Your task to perform on an android device: choose inbox layout in the gmail app Image 0: 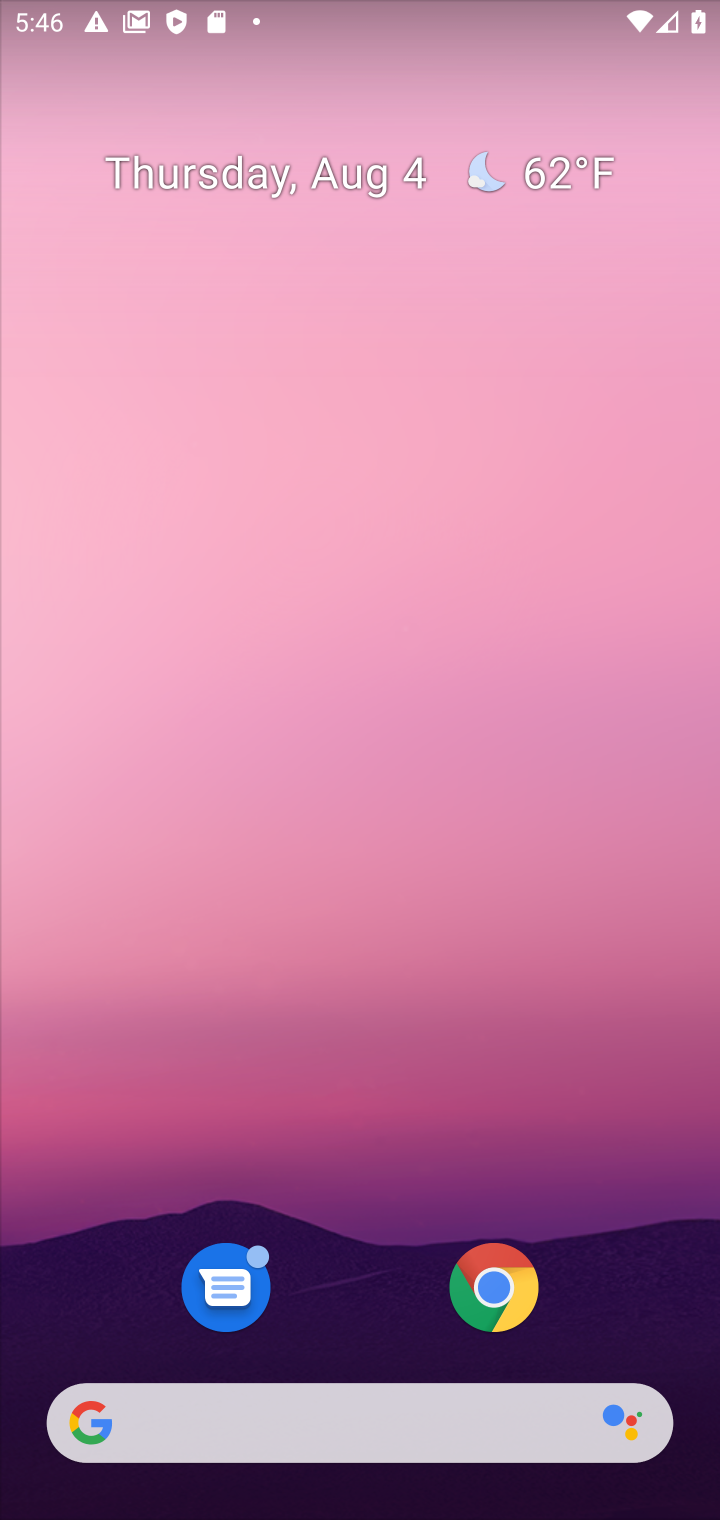
Step 0: drag from (275, 985) to (268, 346)
Your task to perform on an android device: choose inbox layout in the gmail app Image 1: 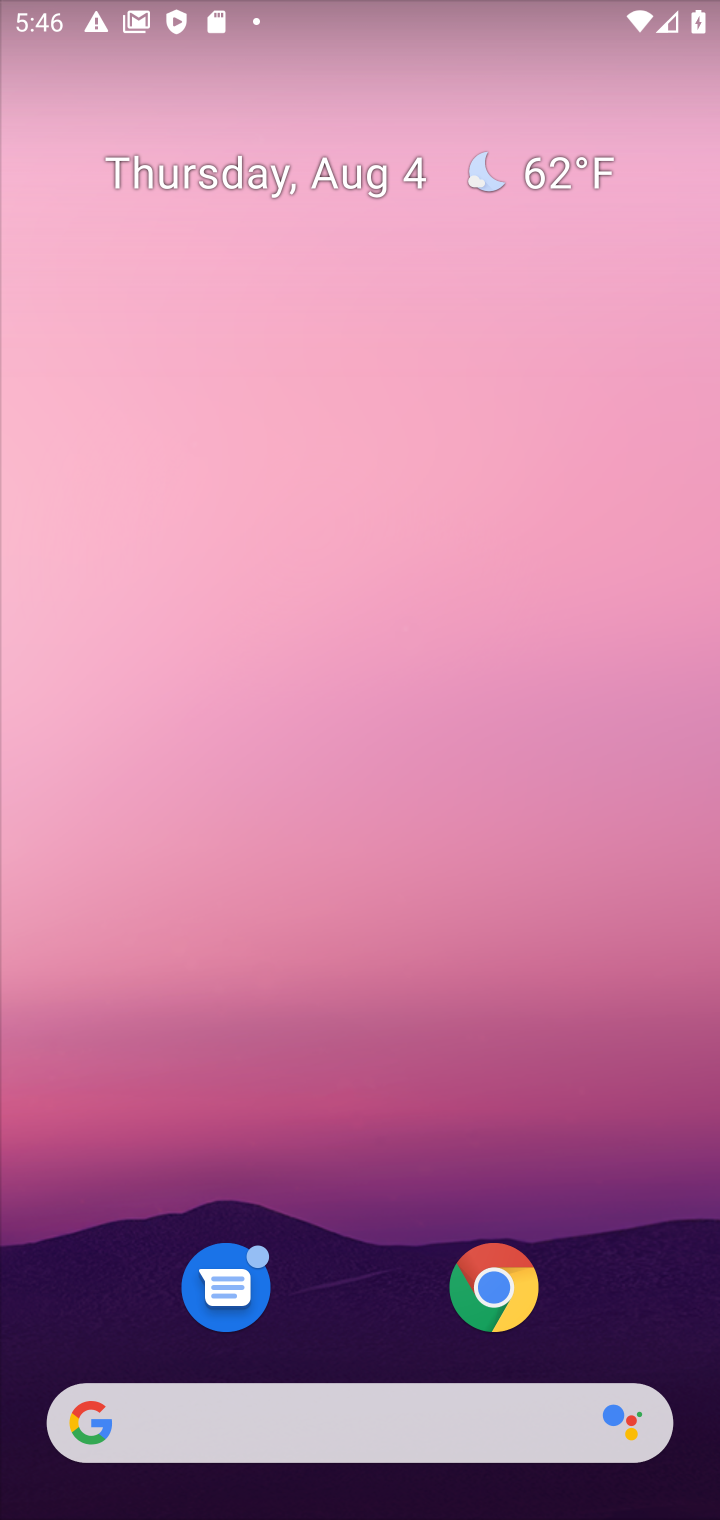
Step 1: drag from (275, 1518) to (343, 9)
Your task to perform on an android device: choose inbox layout in the gmail app Image 2: 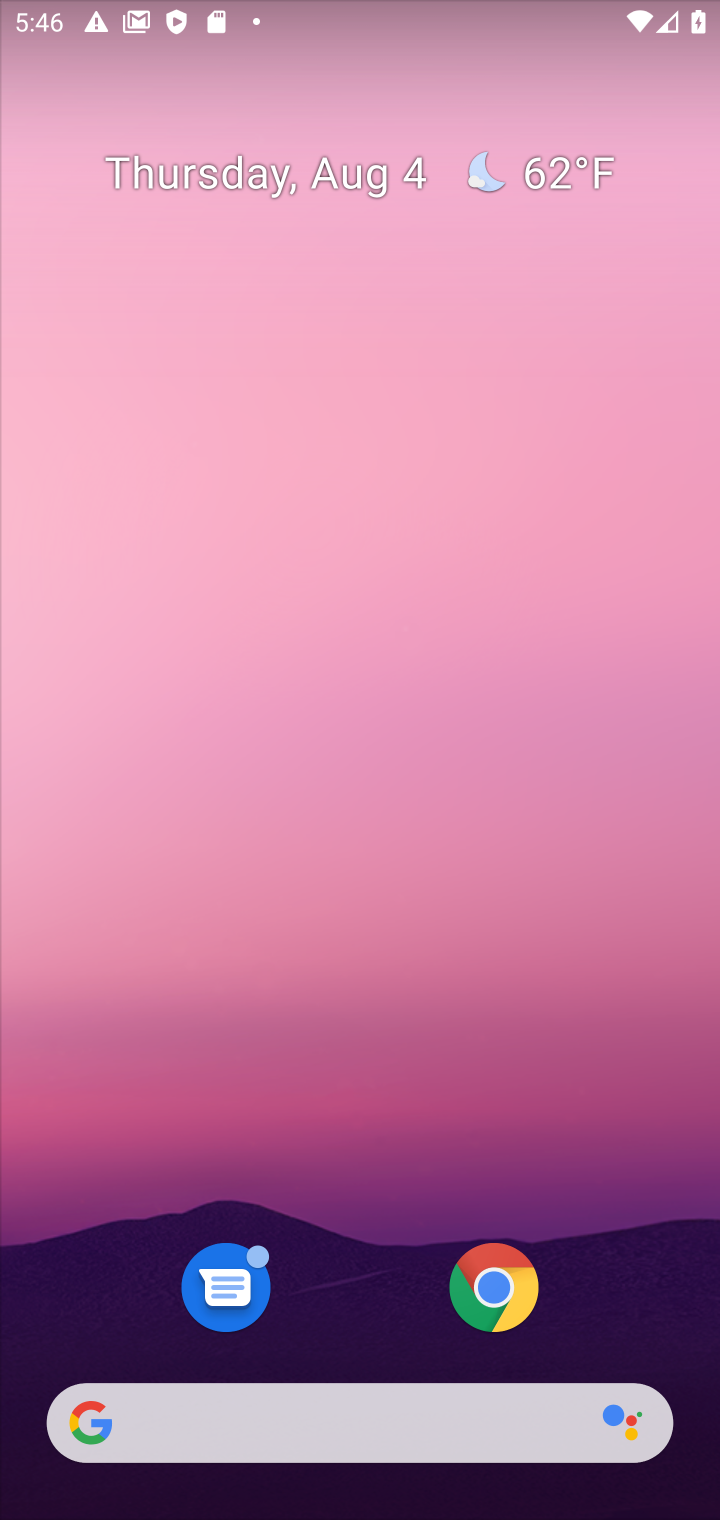
Step 2: drag from (318, 1480) to (392, 48)
Your task to perform on an android device: choose inbox layout in the gmail app Image 3: 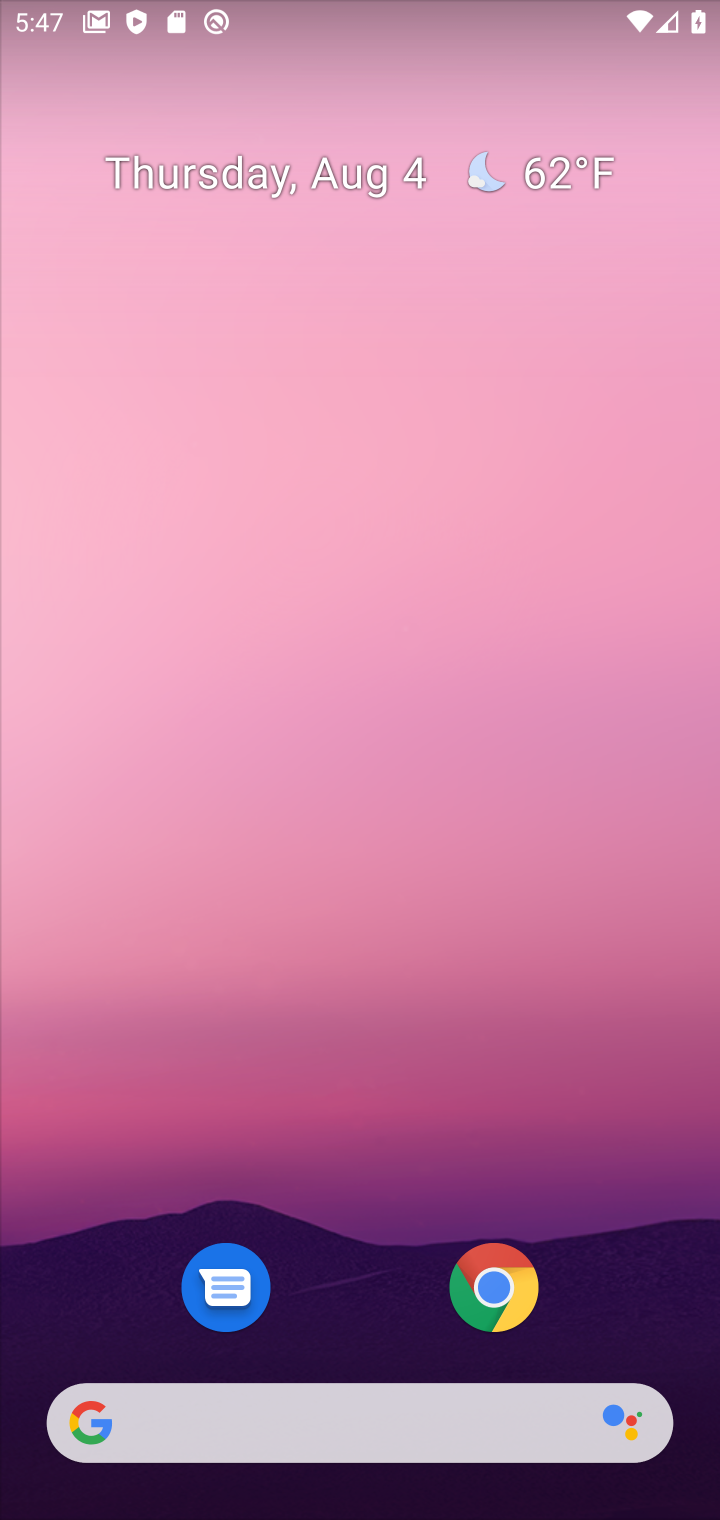
Step 3: drag from (124, 1510) to (141, 128)
Your task to perform on an android device: choose inbox layout in the gmail app Image 4: 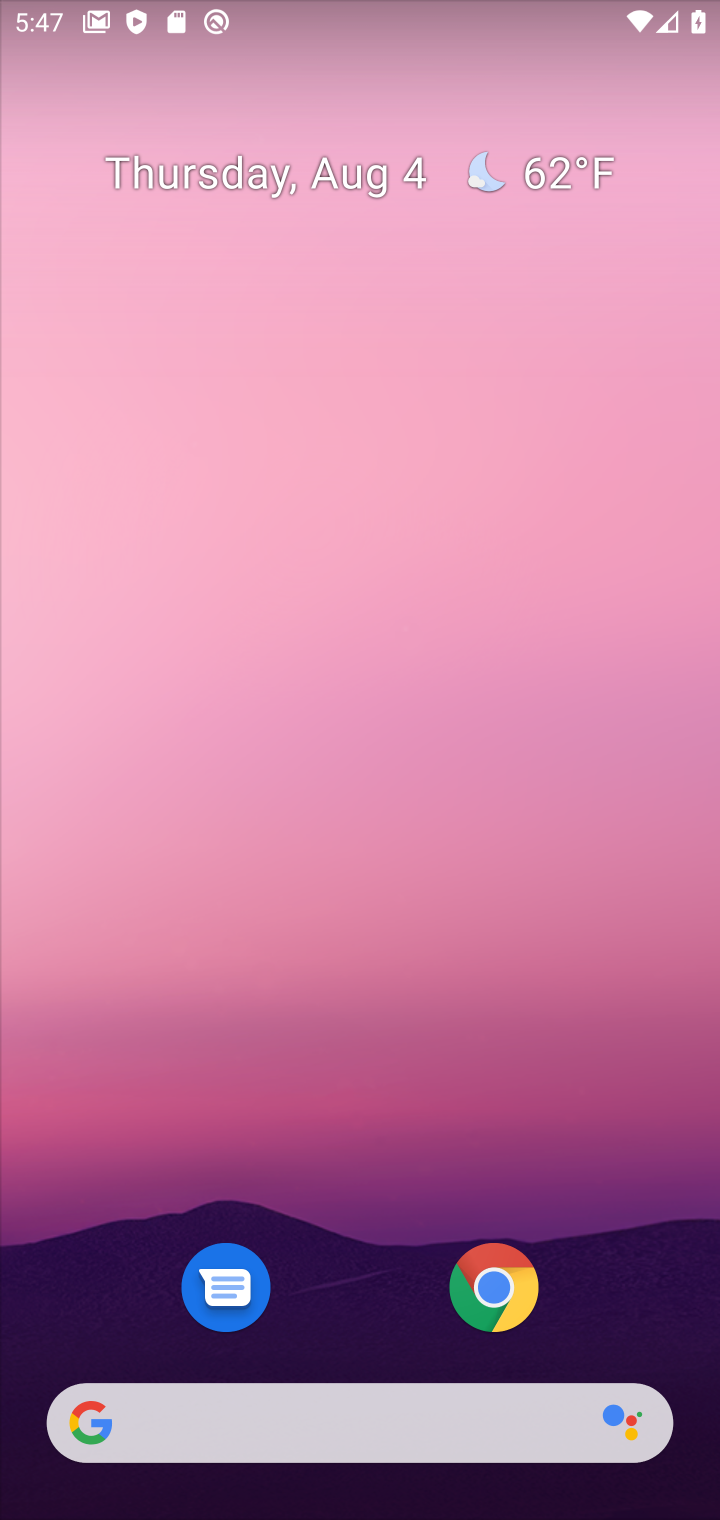
Step 4: drag from (483, 1423) to (627, 51)
Your task to perform on an android device: choose inbox layout in the gmail app Image 5: 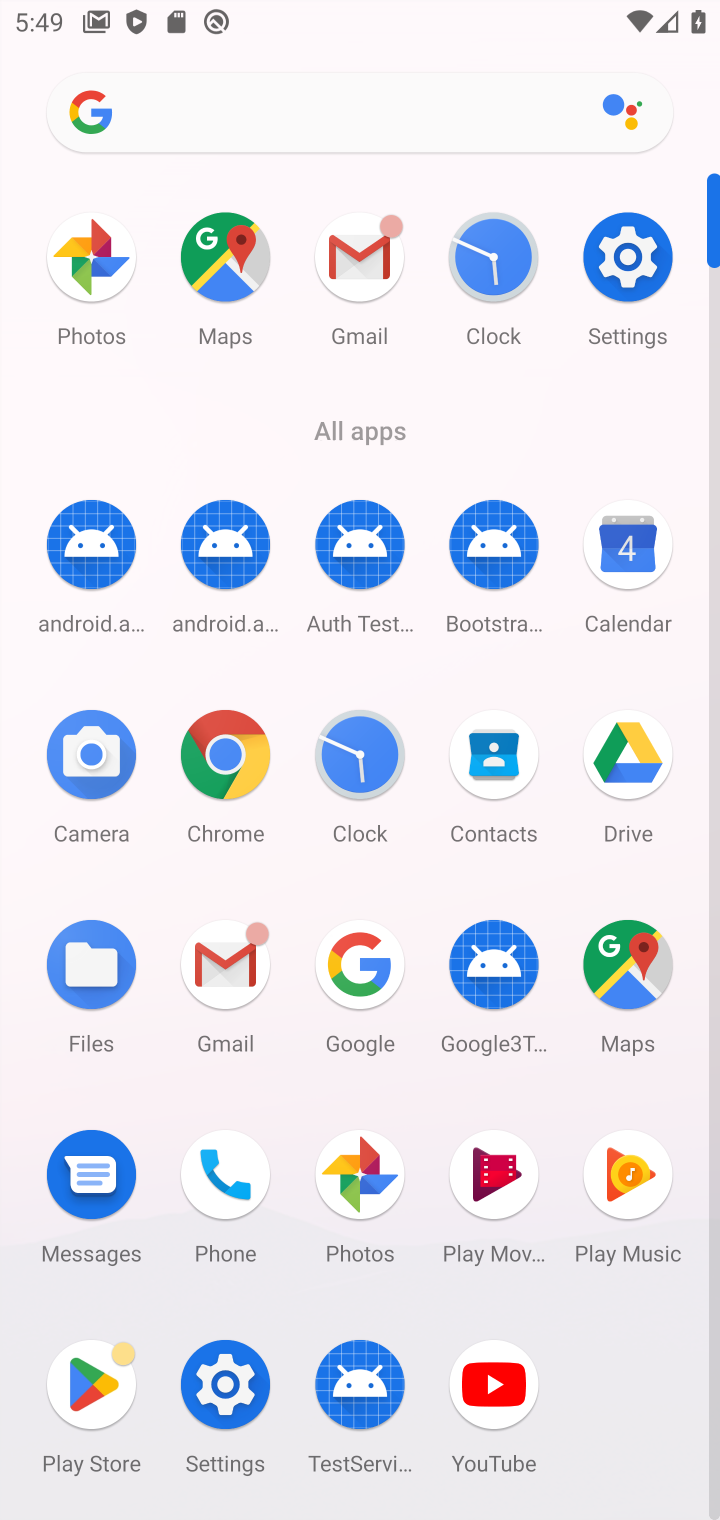
Step 5: click (350, 263)
Your task to perform on an android device: choose inbox layout in the gmail app Image 6: 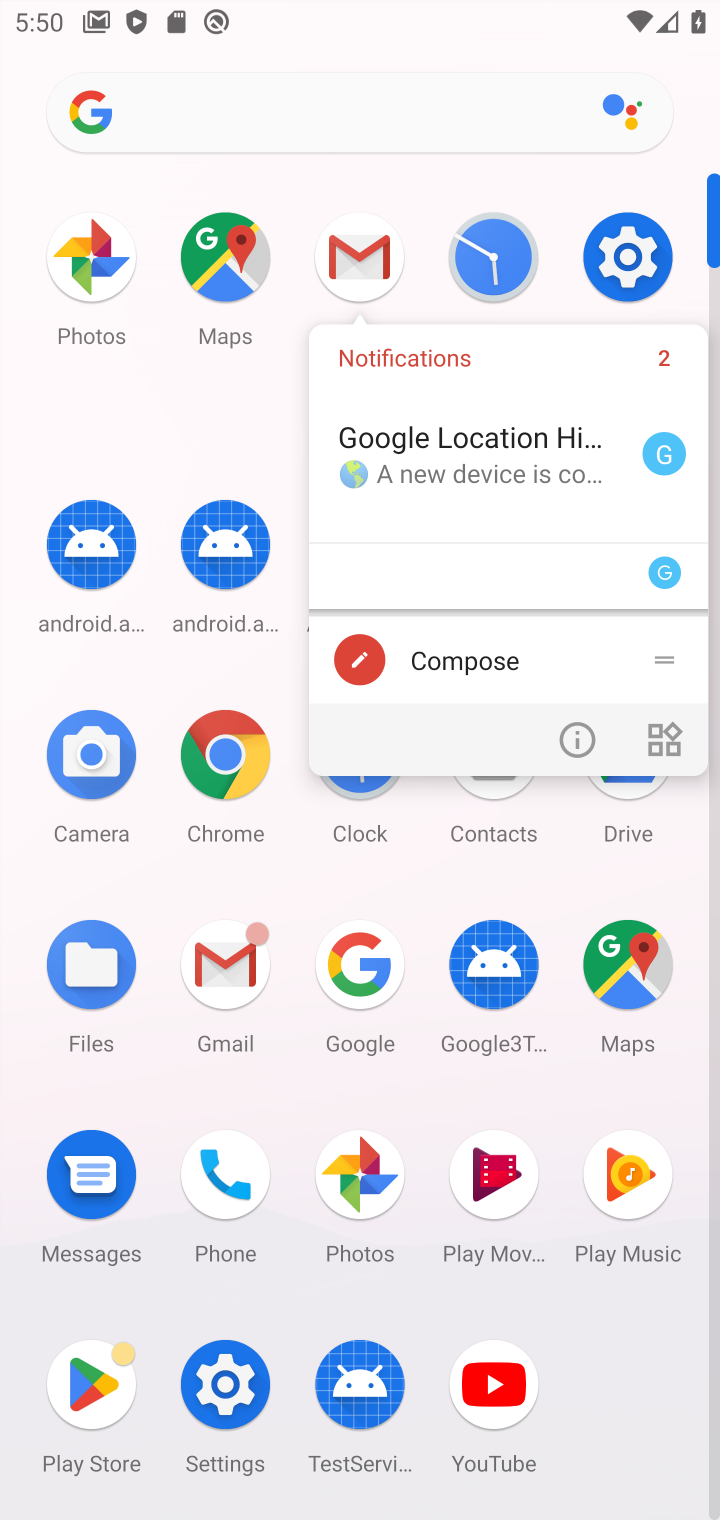
Step 6: click (392, 237)
Your task to perform on an android device: choose inbox layout in the gmail app Image 7: 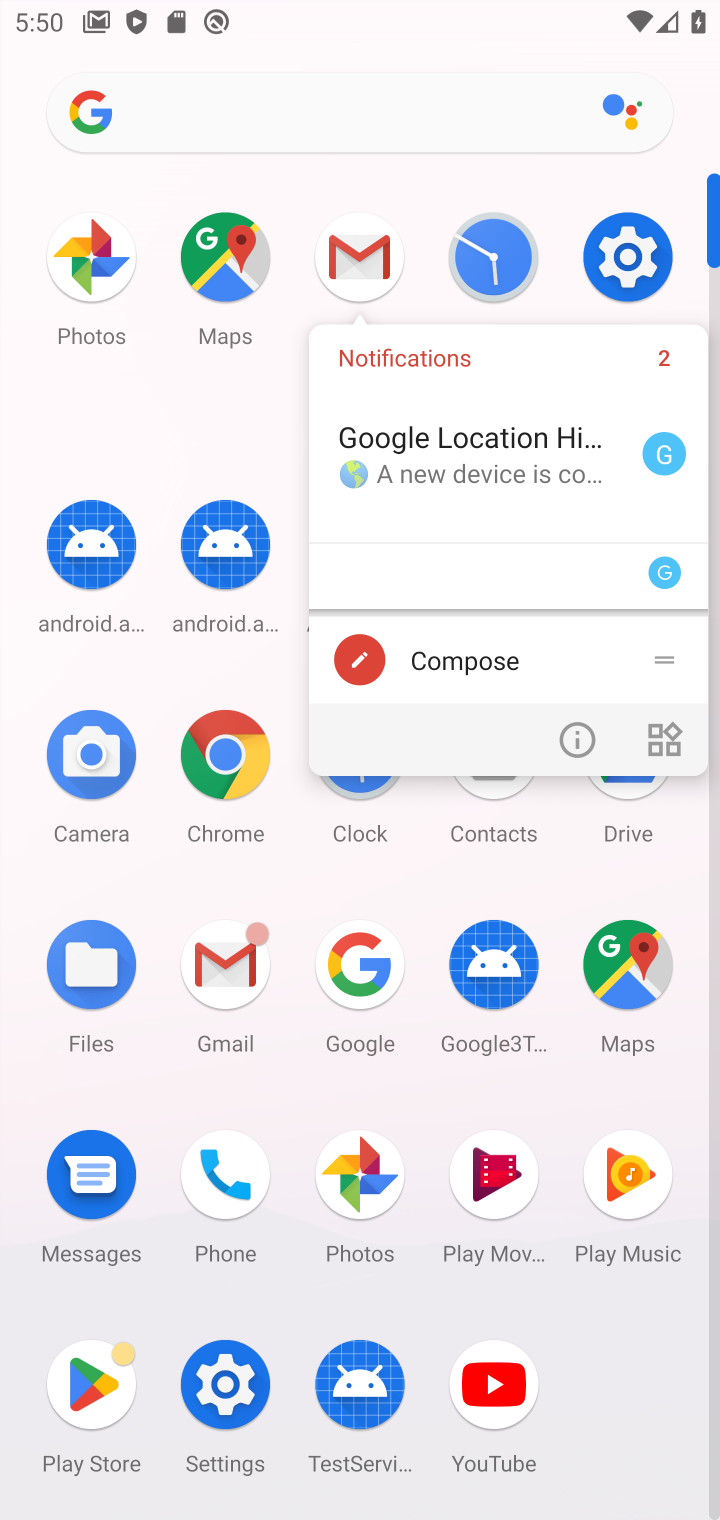
Step 7: click (366, 223)
Your task to perform on an android device: choose inbox layout in the gmail app Image 8: 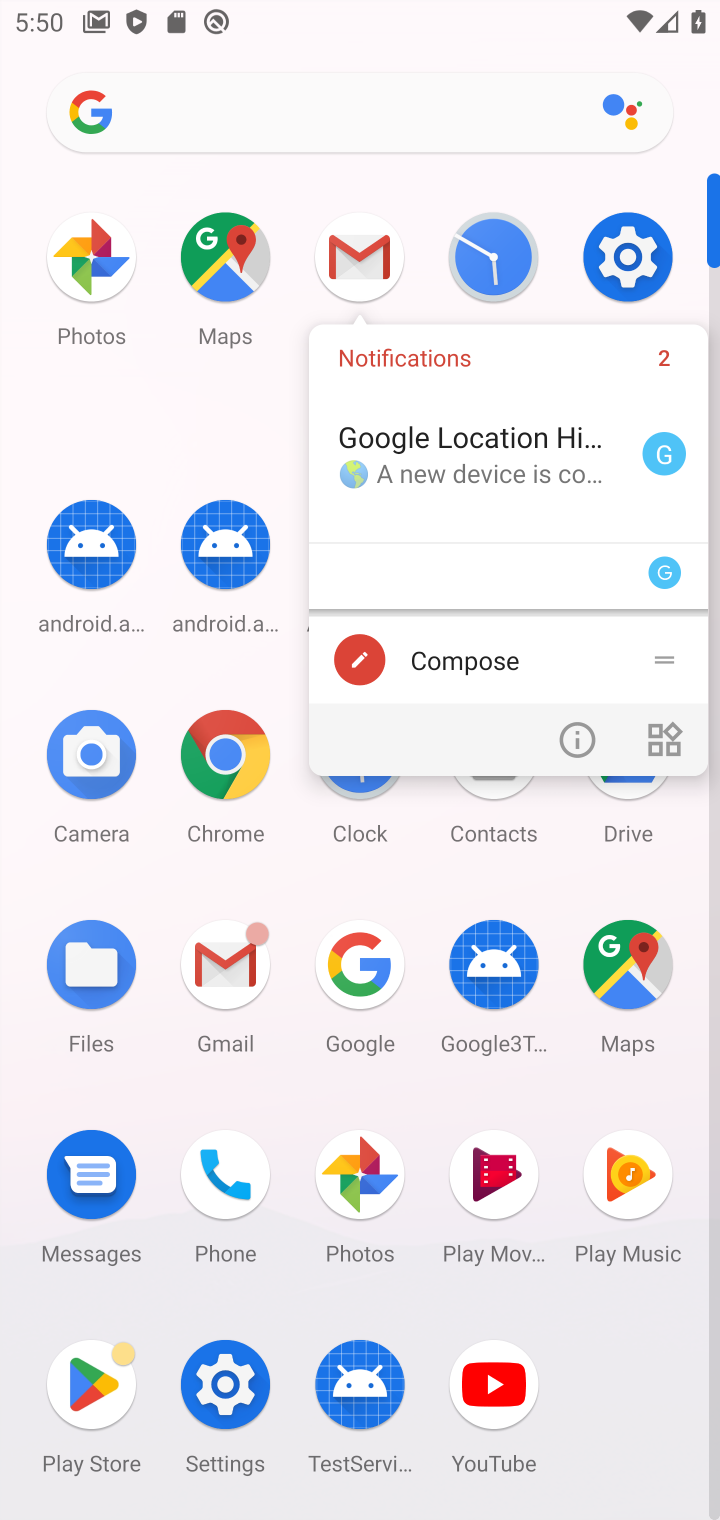
Step 8: click (366, 257)
Your task to perform on an android device: choose inbox layout in the gmail app Image 9: 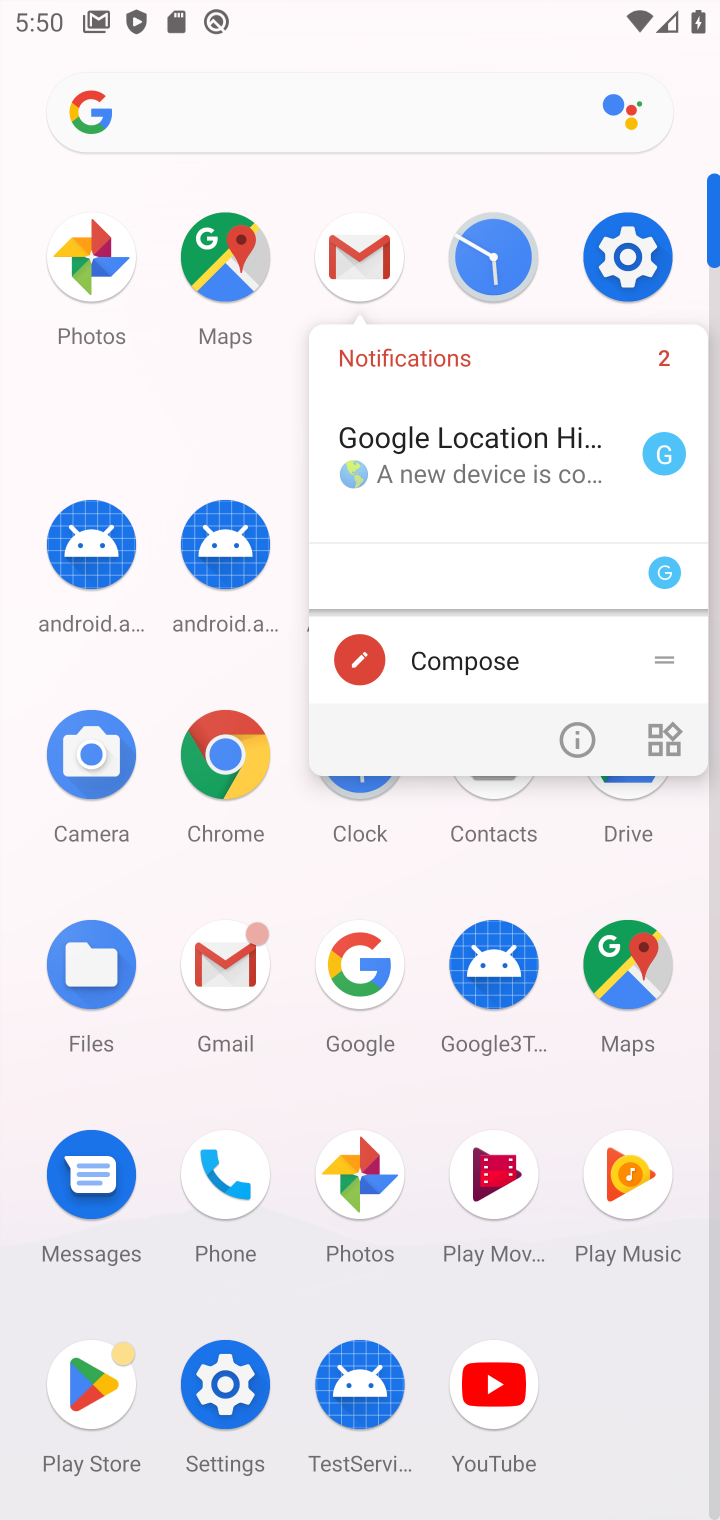
Step 9: click (369, 256)
Your task to perform on an android device: choose inbox layout in the gmail app Image 10: 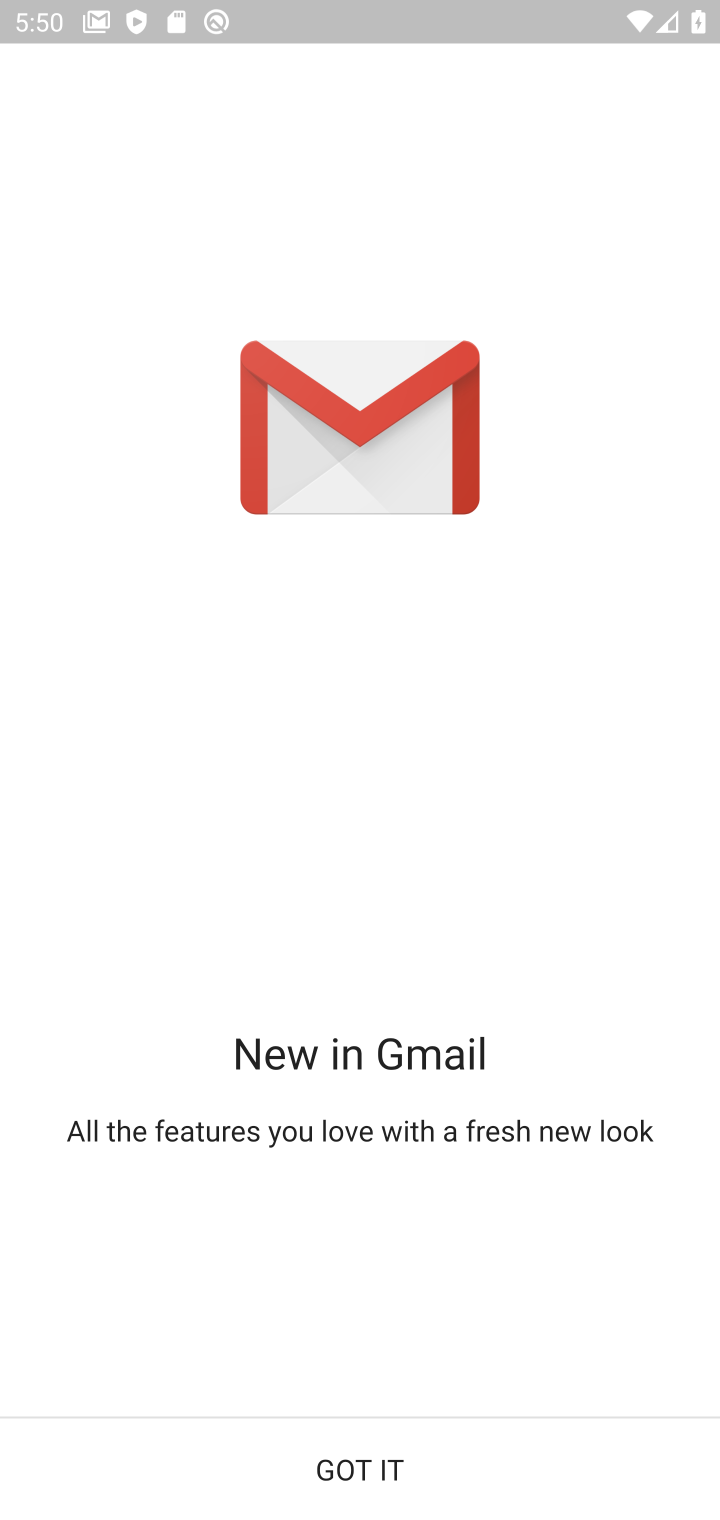
Step 10: click (397, 1482)
Your task to perform on an android device: choose inbox layout in the gmail app Image 11: 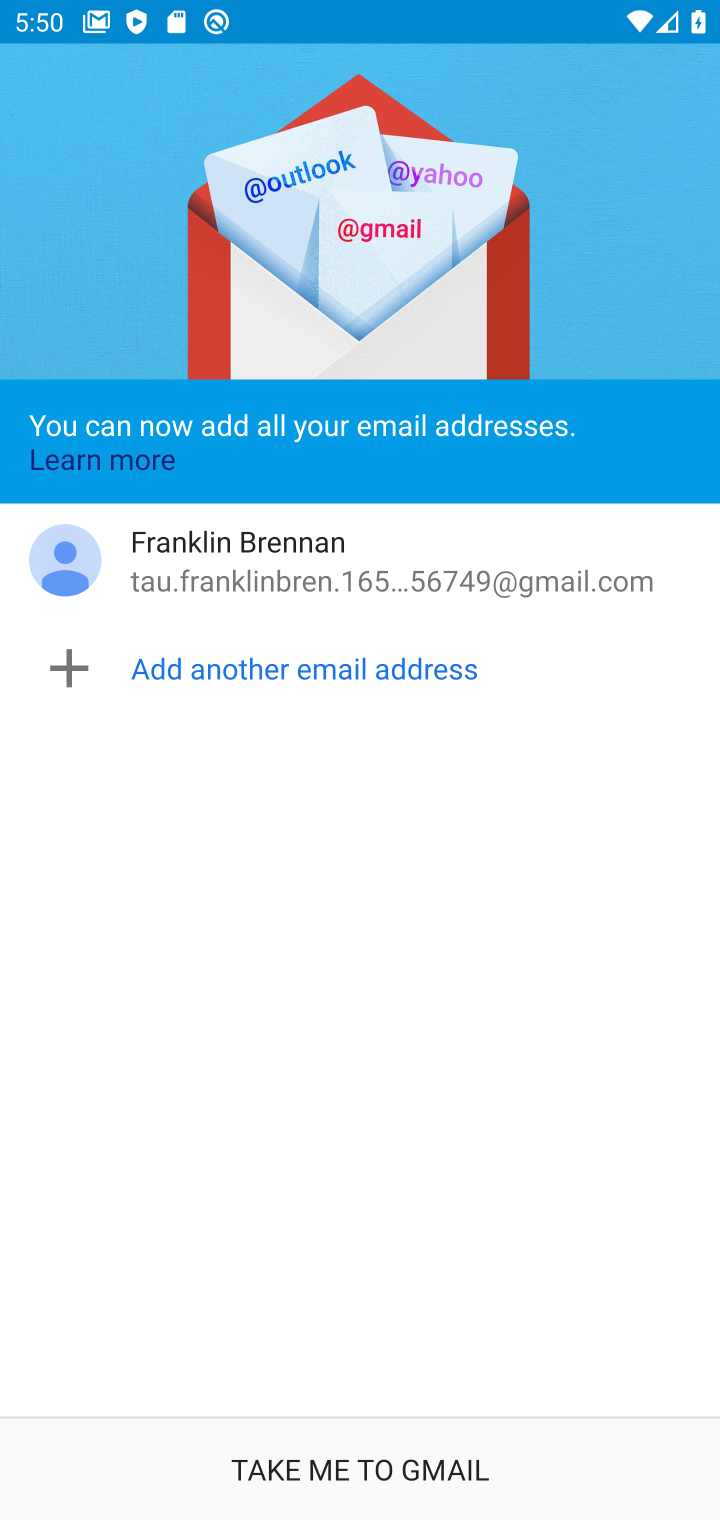
Step 11: click (397, 1482)
Your task to perform on an android device: choose inbox layout in the gmail app Image 12: 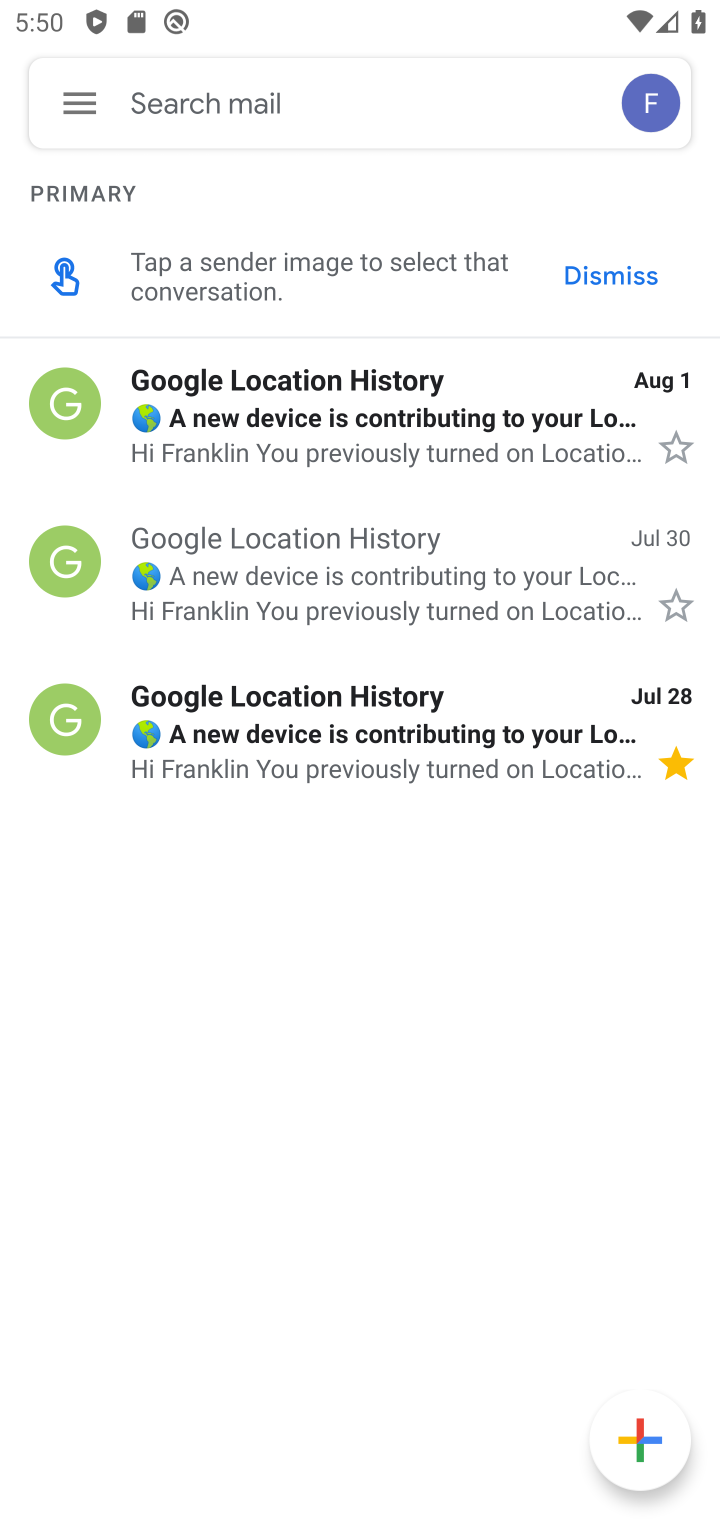
Step 12: click (85, 86)
Your task to perform on an android device: choose inbox layout in the gmail app Image 13: 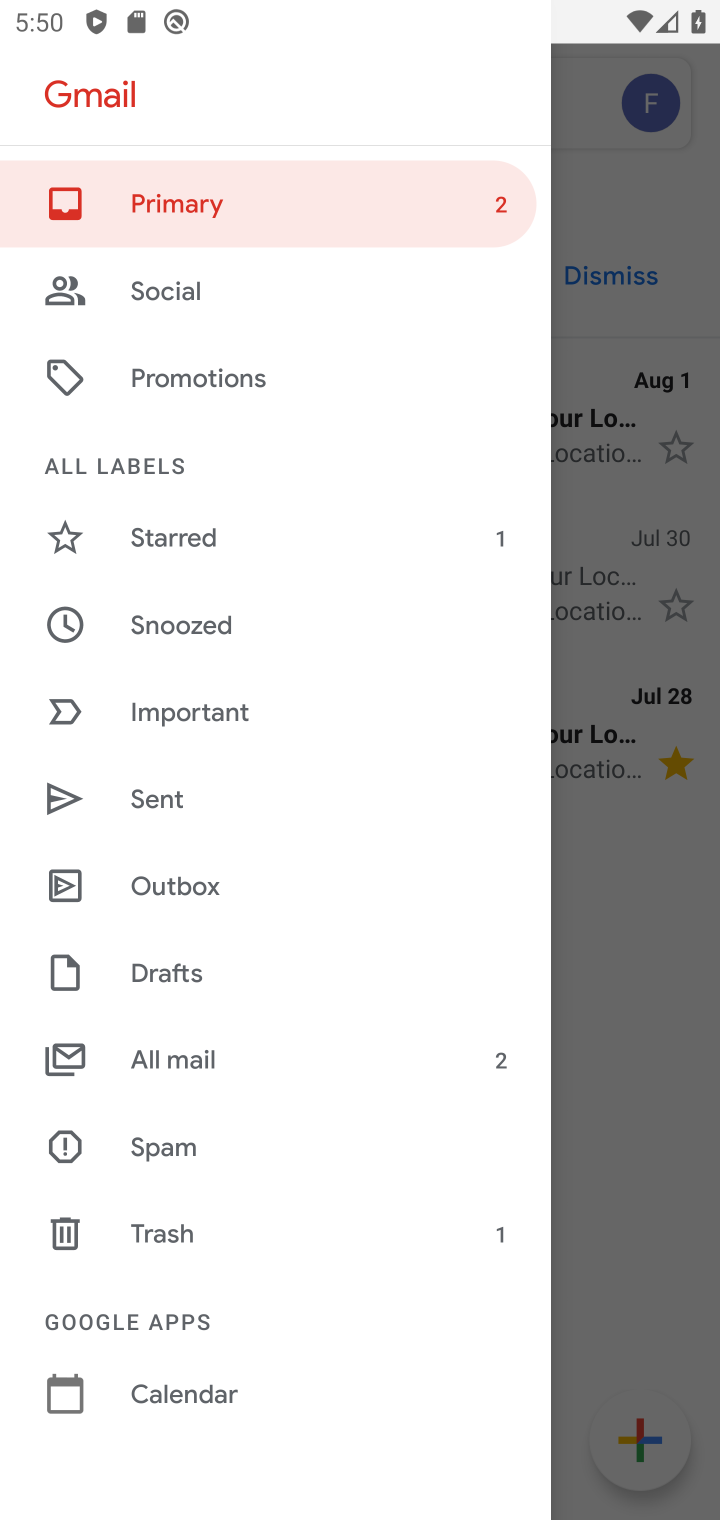
Step 13: drag from (250, 1402) to (305, 291)
Your task to perform on an android device: choose inbox layout in the gmail app Image 14: 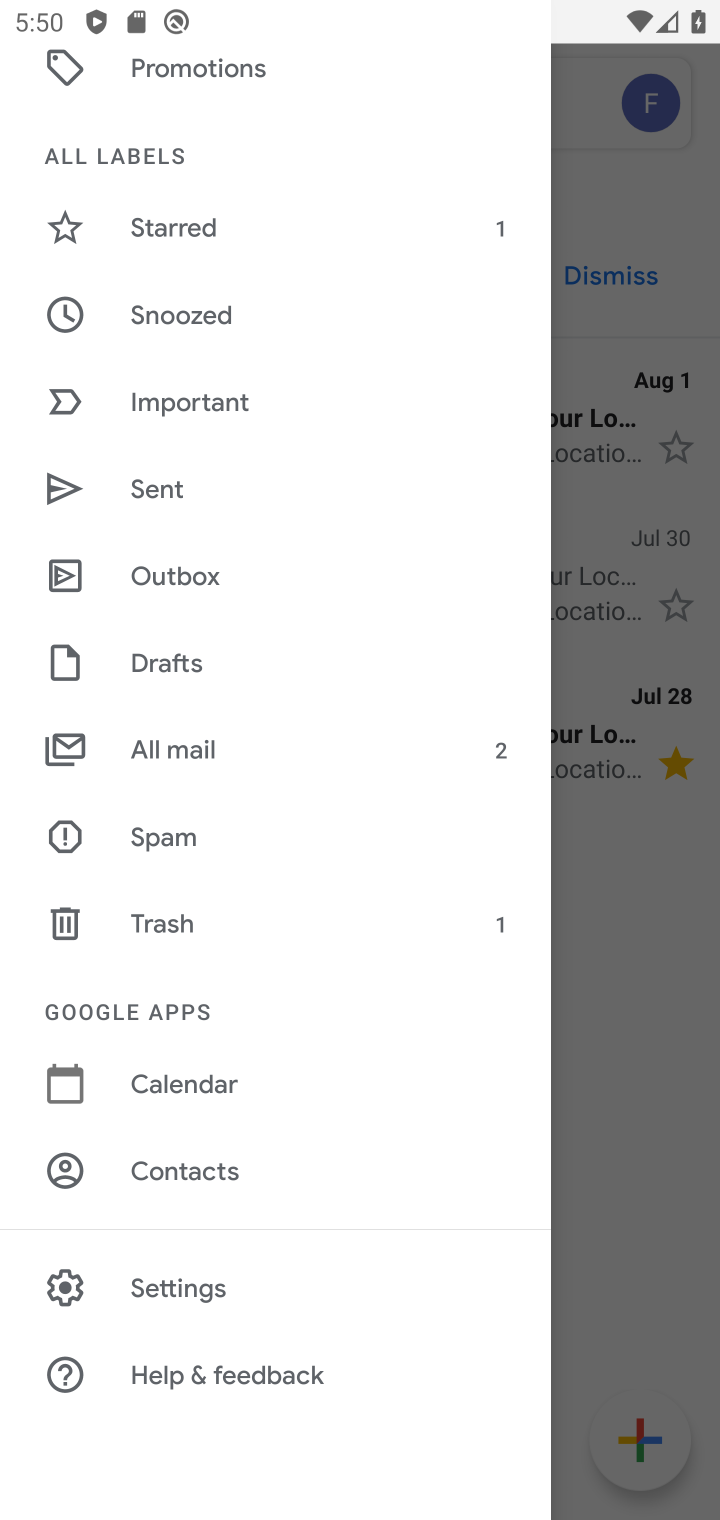
Step 14: click (257, 1273)
Your task to perform on an android device: choose inbox layout in the gmail app Image 15: 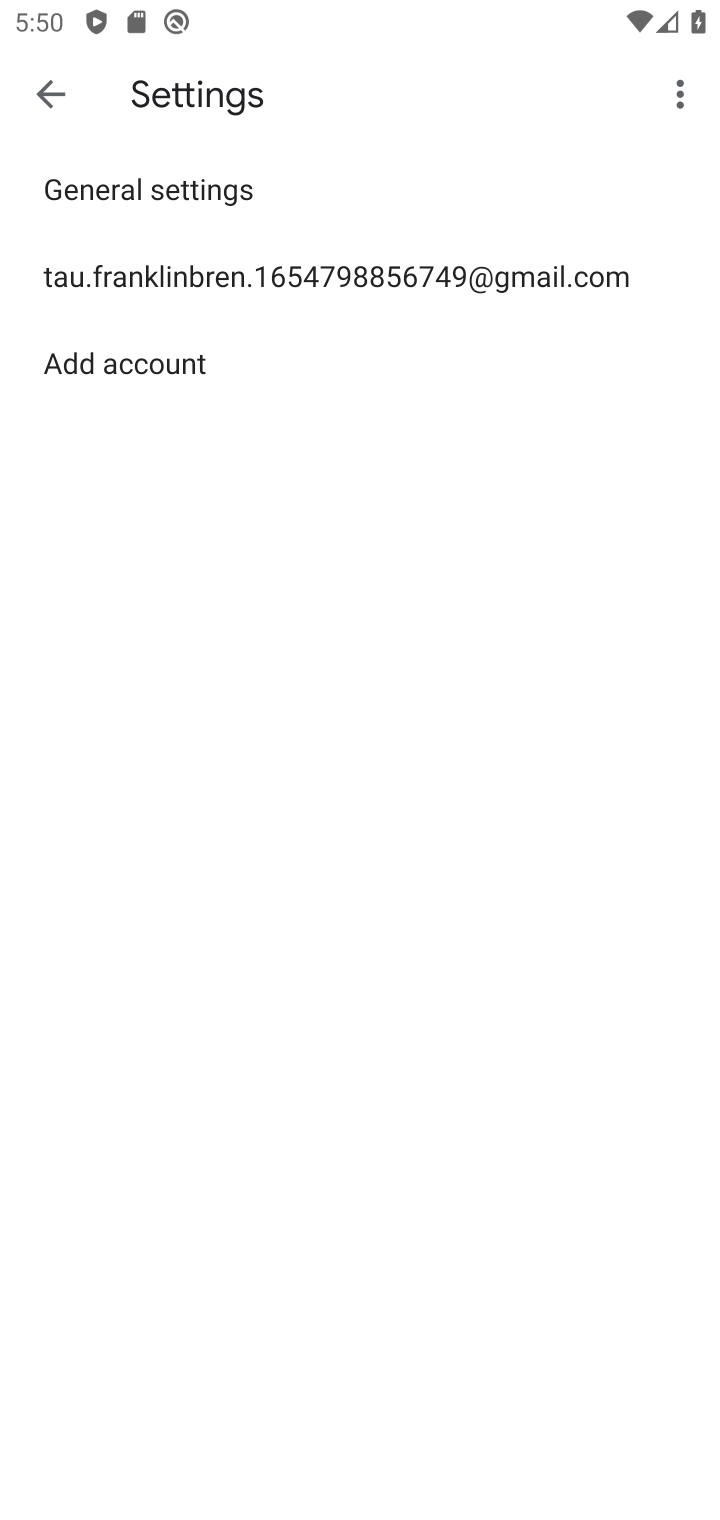
Step 15: click (134, 281)
Your task to perform on an android device: choose inbox layout in the gmail app Image 16: 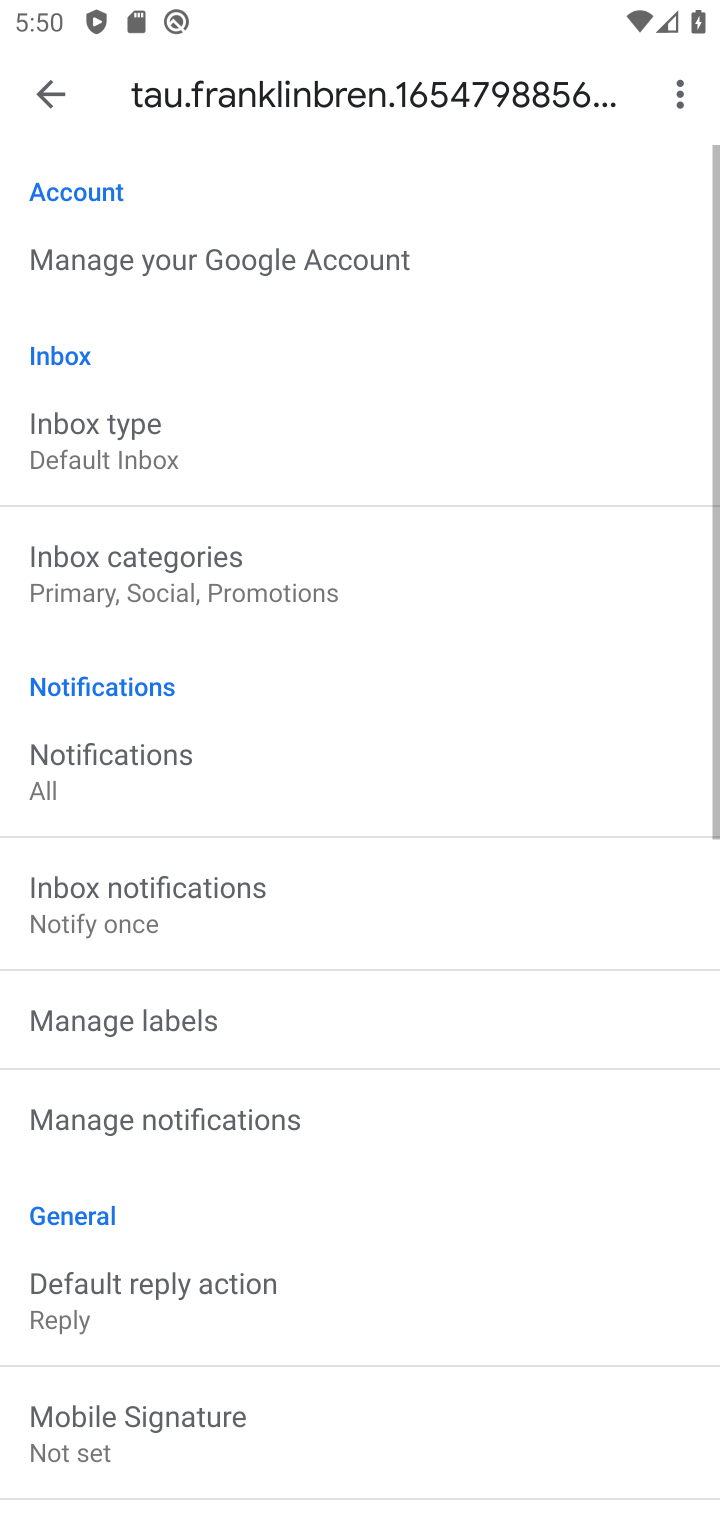
Step 16: drag from (428, 1344) to (394, 72)
Your task to perform on an android device: choose inbox layout in the gmail app Image 17: 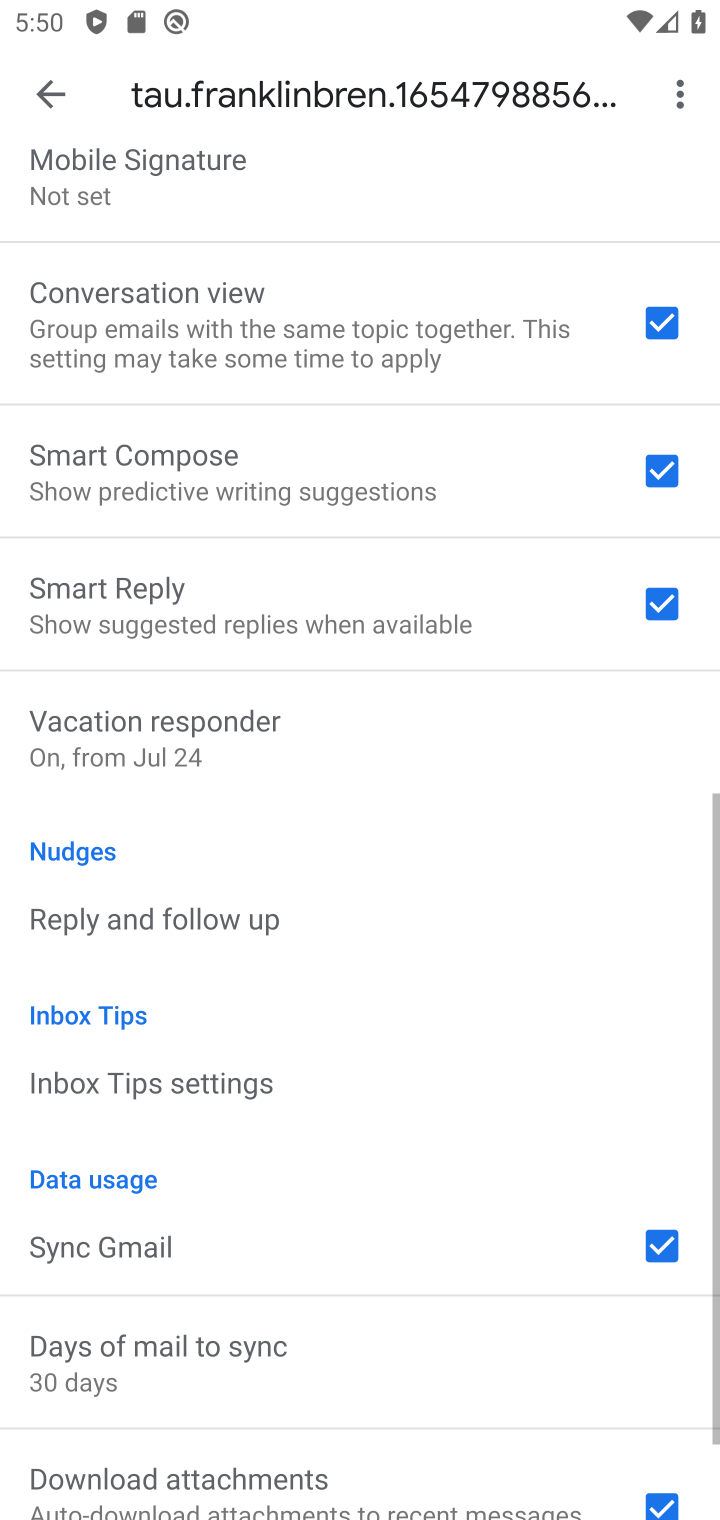
Step 17: drag from (252, 580) to (262, 483)
Your task to perform on an android device: choose inbox layout in the gmail app Image 18: 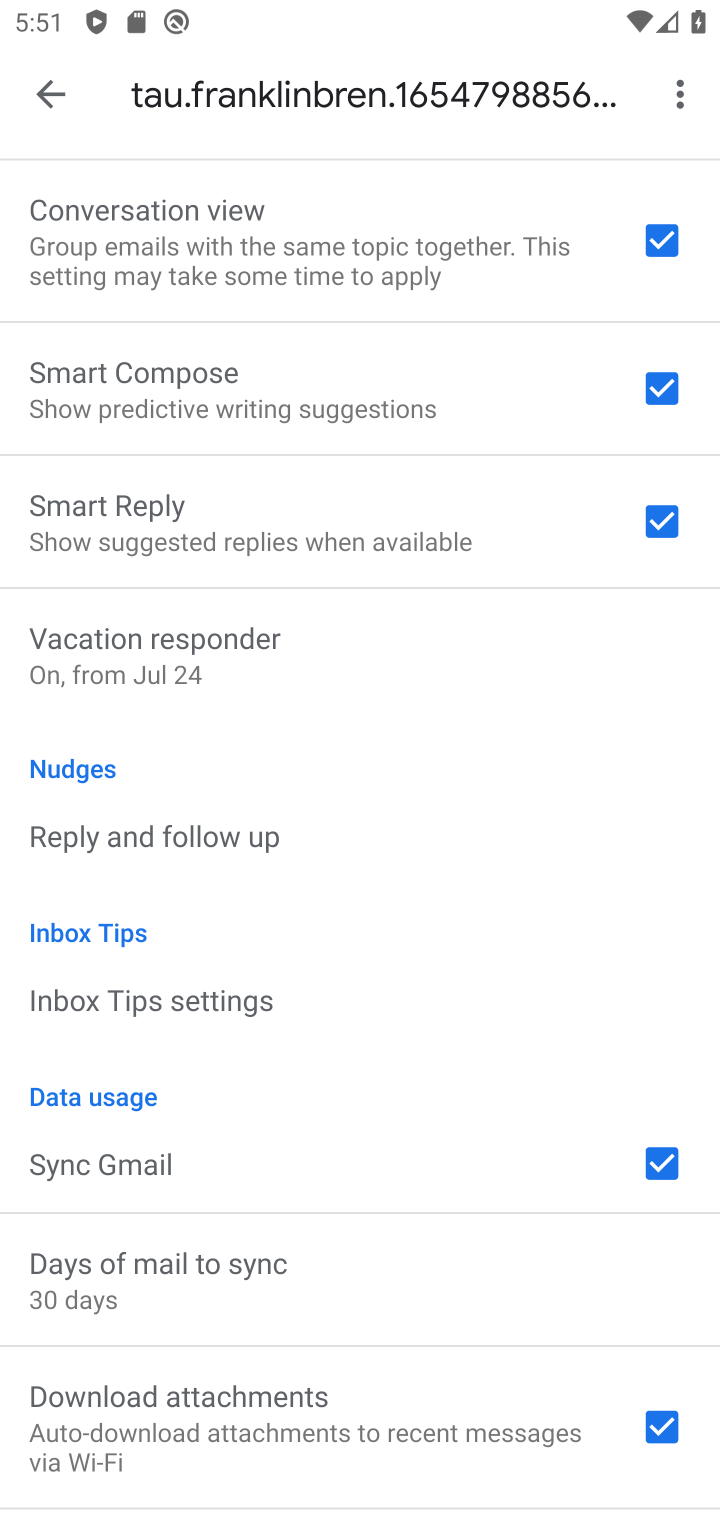
Step 18: drag from (332, 861) to (436, 1369)
Your task to perform on an android device: choose inbox layout in the gmail app Image 19: 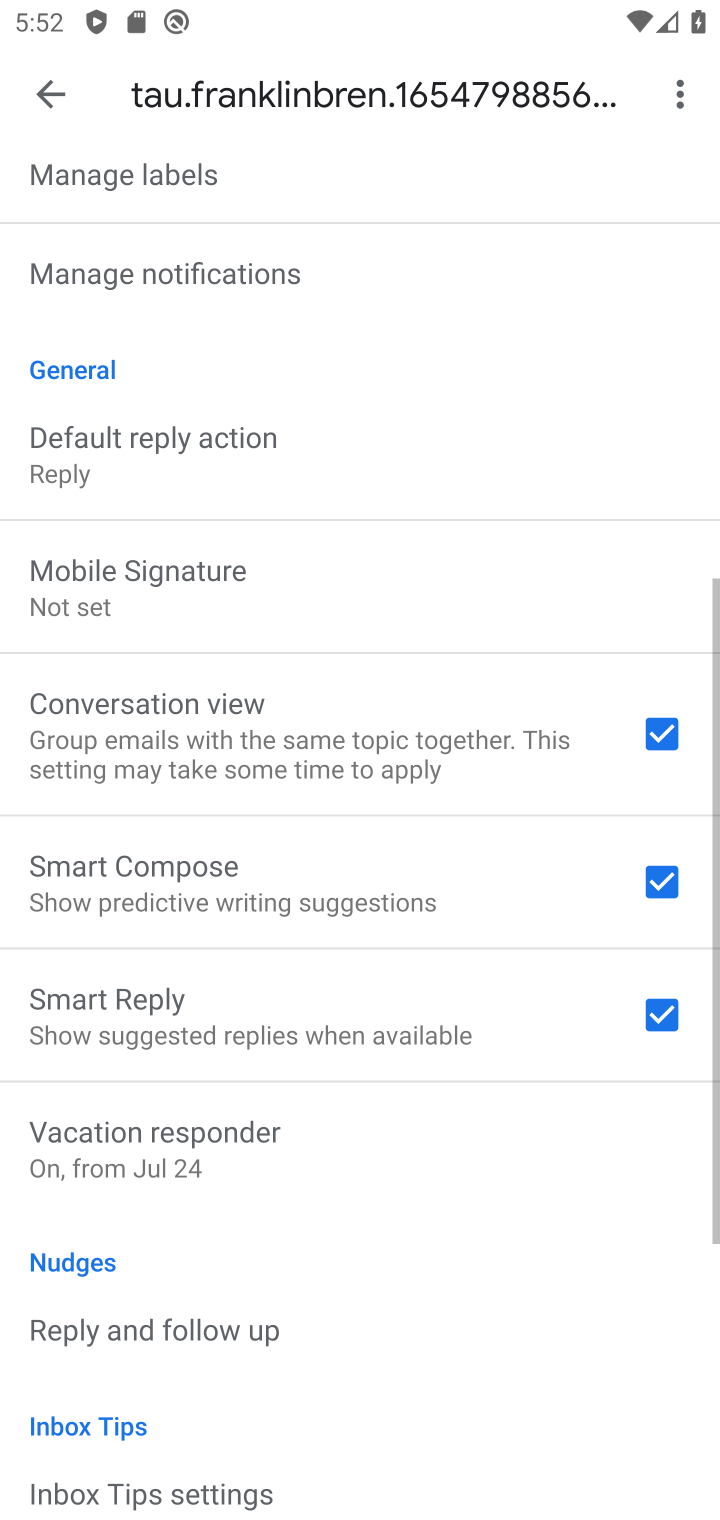
Step 19: drag from (316, 642) to (430, 1485)
Your task to perform on an android device: choose inbox layout in the gmail app Image 20: 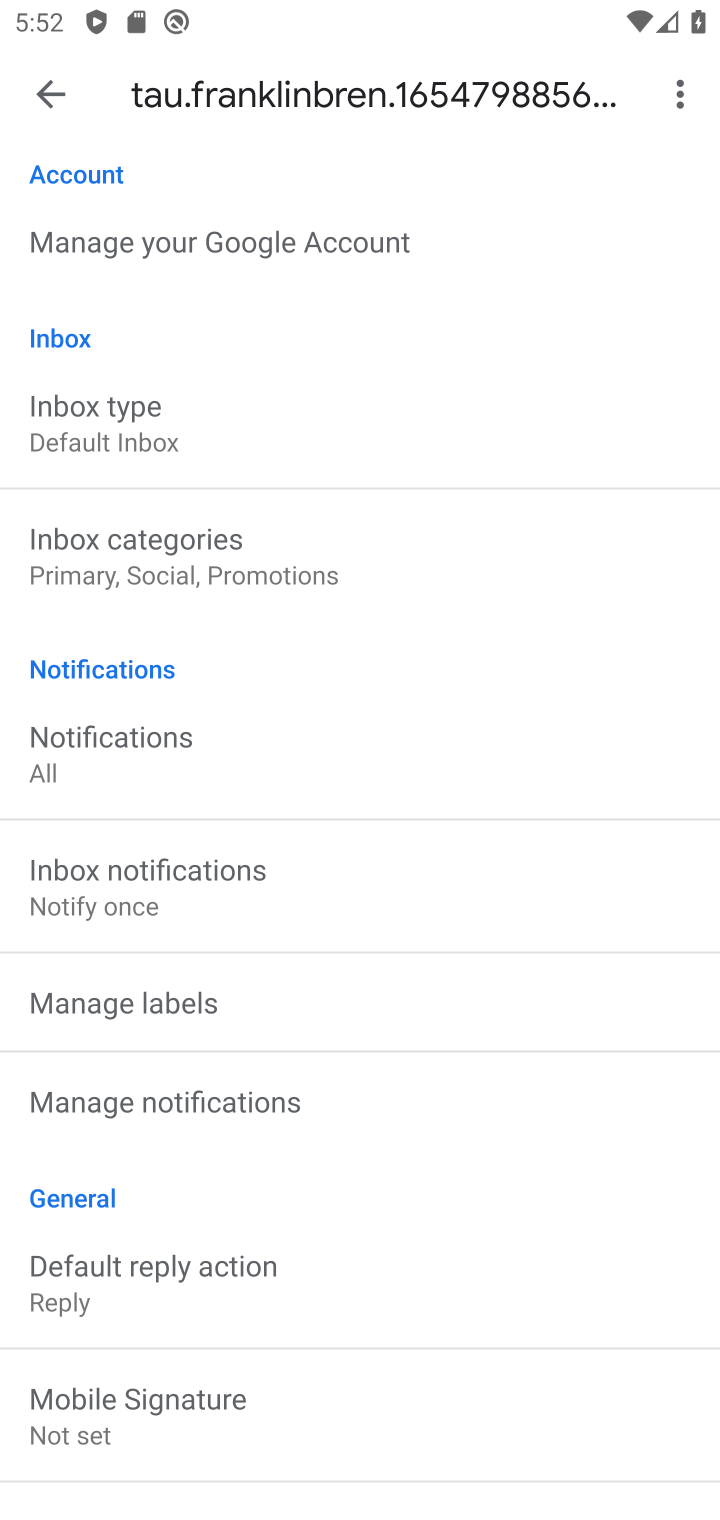
Step 20: click (138, 439)
Your task to perform on an android device: choose inbox layout in the gmail app Image 21: 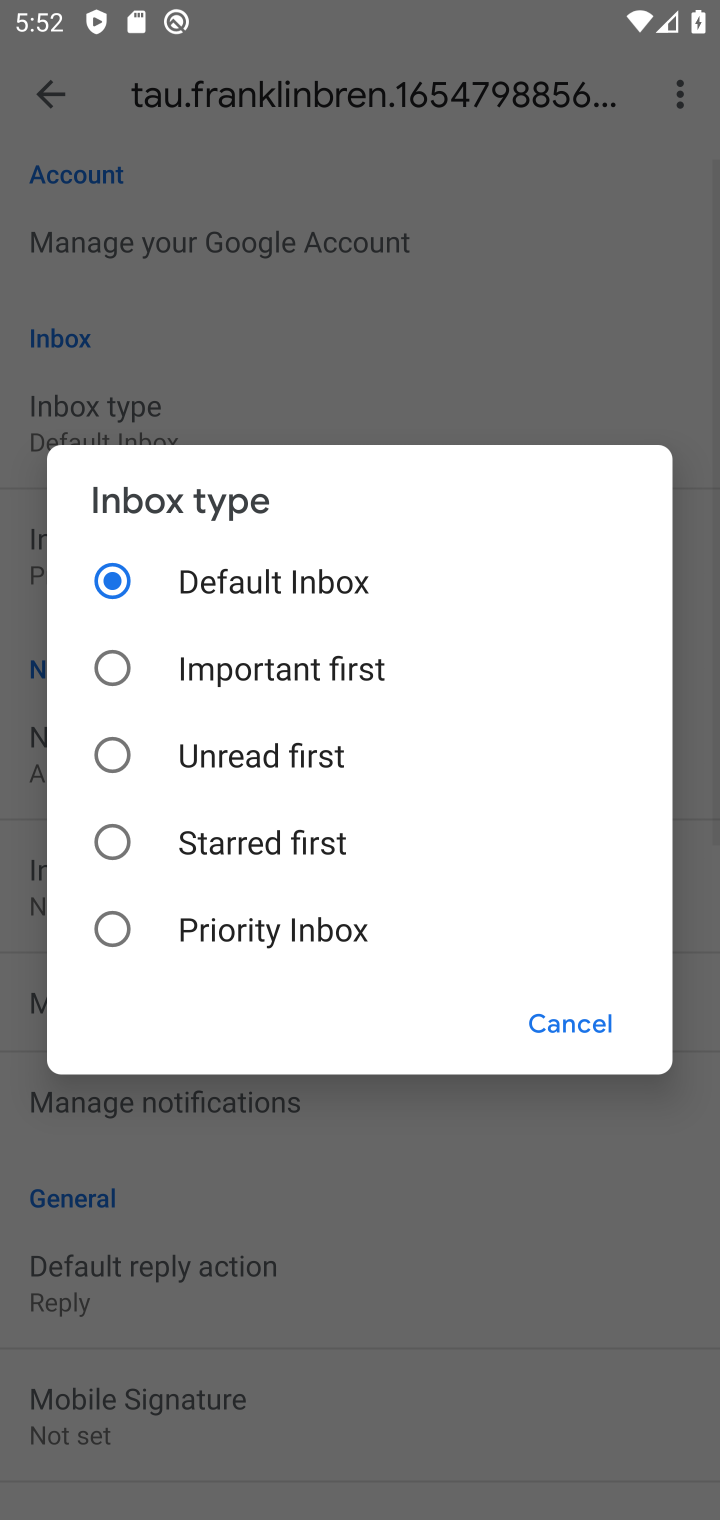
Step 21: click (298, 664)
Your task to perform on an android device: choose inbox layout in the gmail app Image 22: 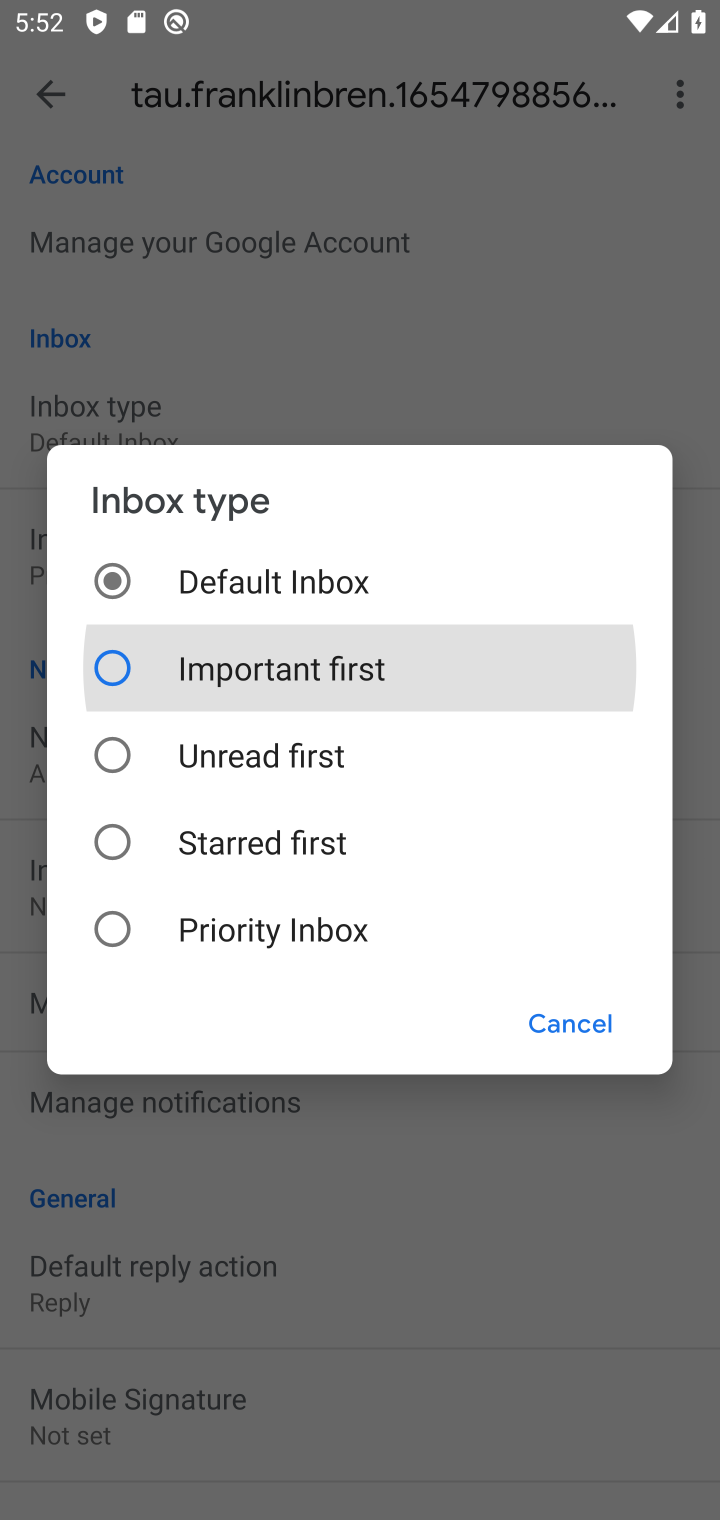
Step 22: task complete